Your task to perform on an android device: manage bookmarks in the chrome app Image 0: 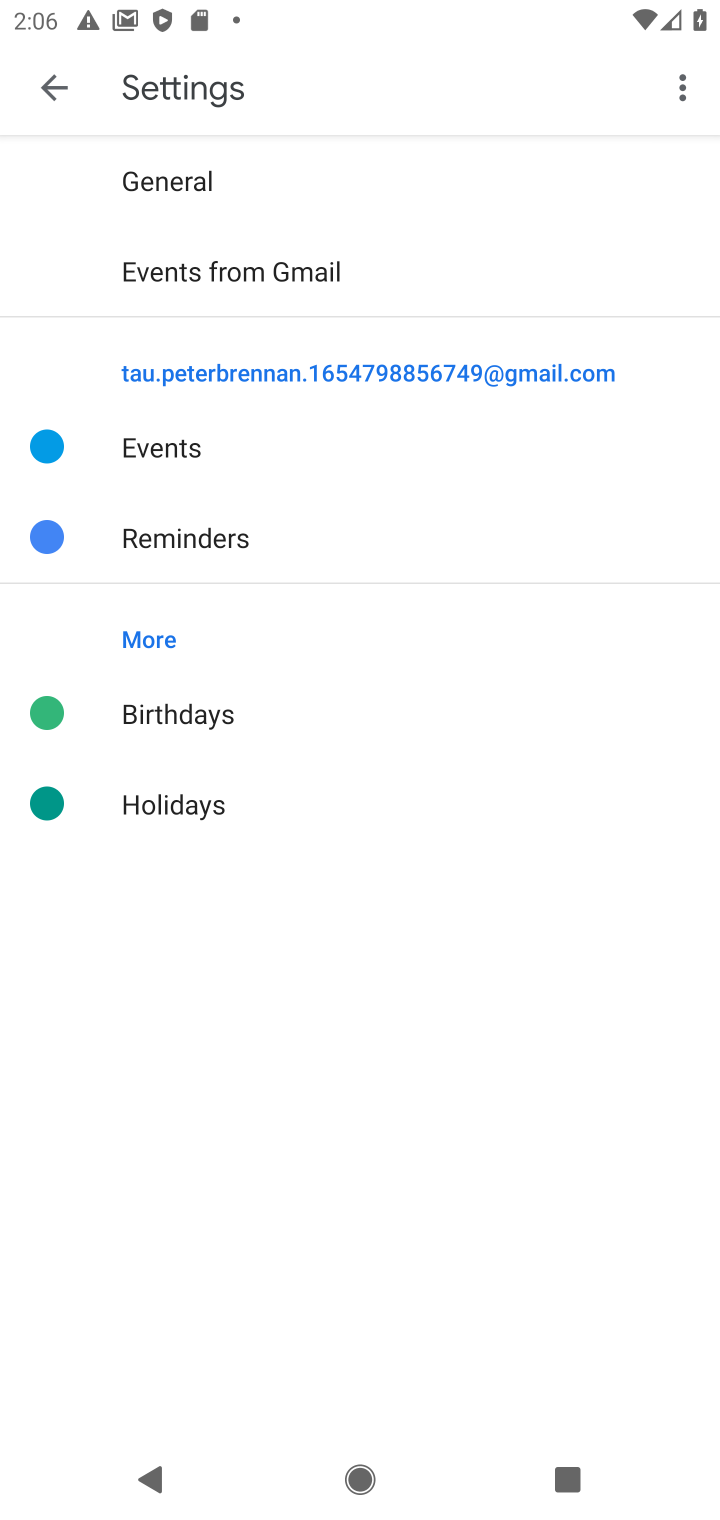
Step 0: press home button
Your task to perform on an android device: manage bookmarks in the chrome app Image 1: 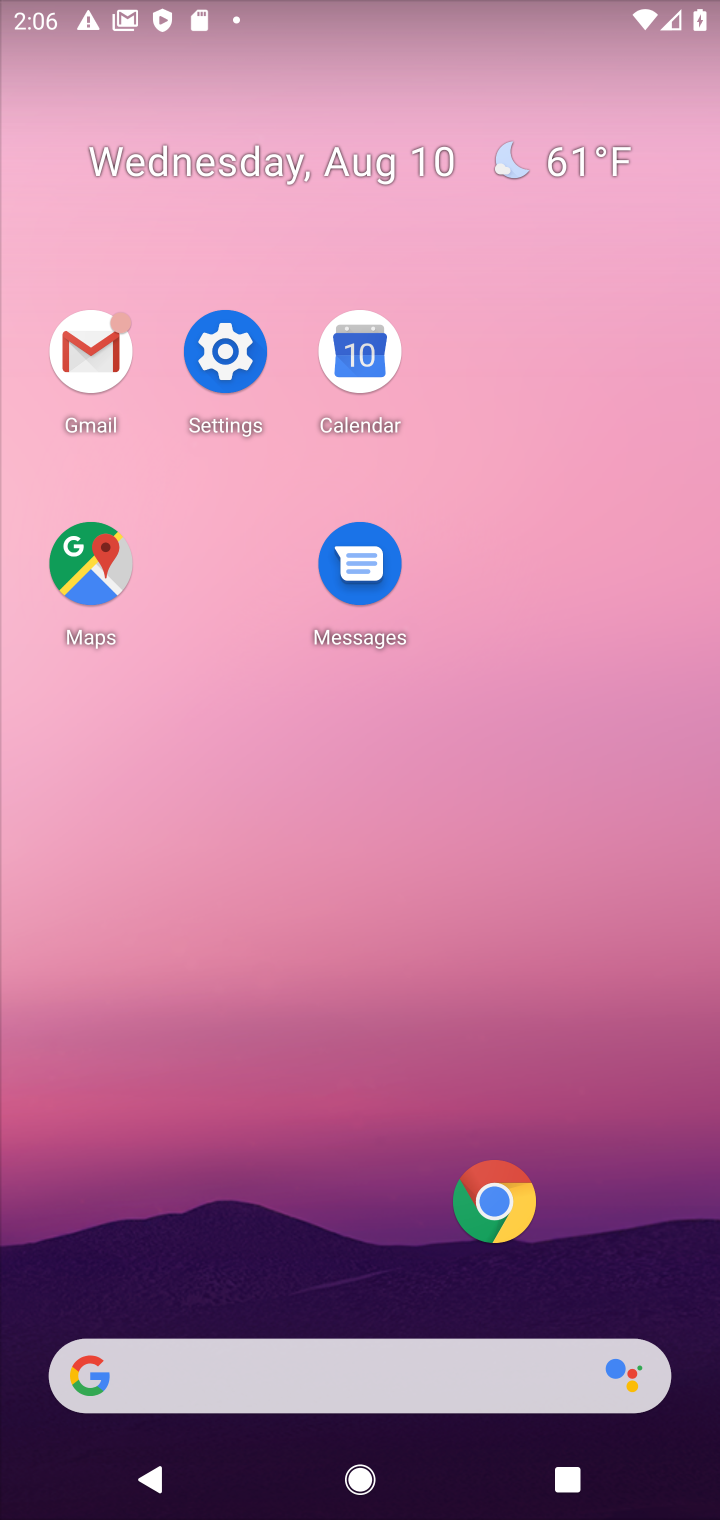
Step 1: click (487, 1189)
Your task to perform on an android device: manage bookmarks in the chrome app Image 2: 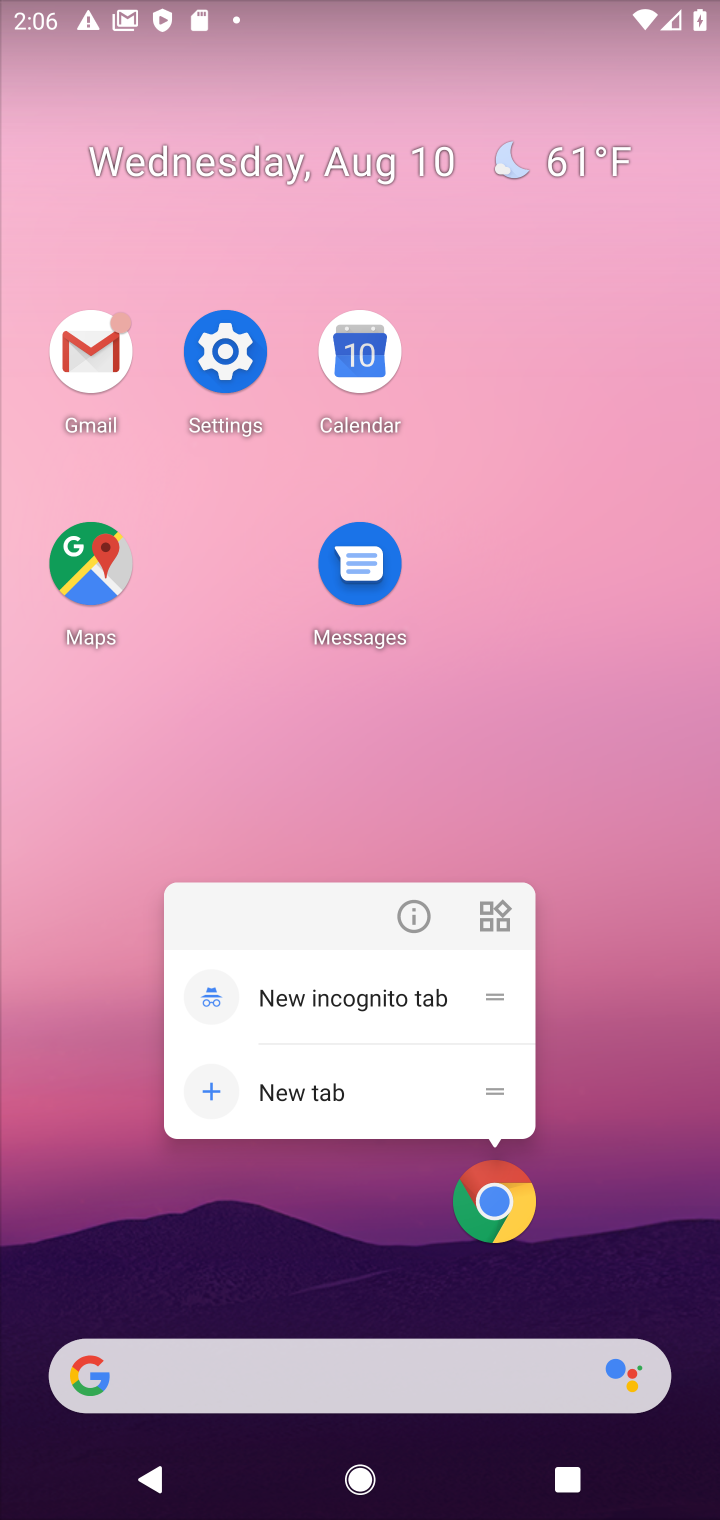
Step 2: click (499, 1202)
Your task to perform on an android device: manage bookmarks in the chrome app Image 3: 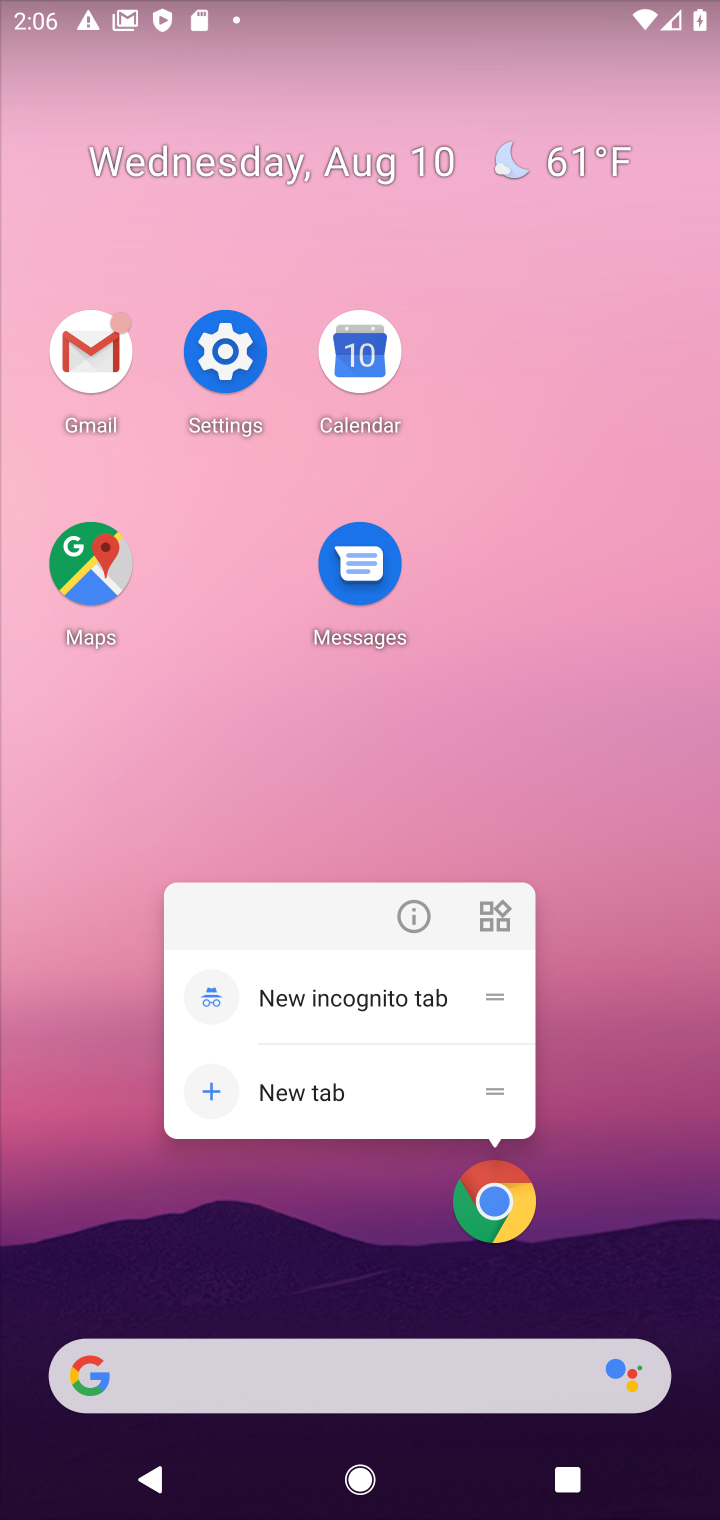
Step 3: click (507, 1202)
Your task to perform on an android device: manage bookmarks in the chrome app Image 4: 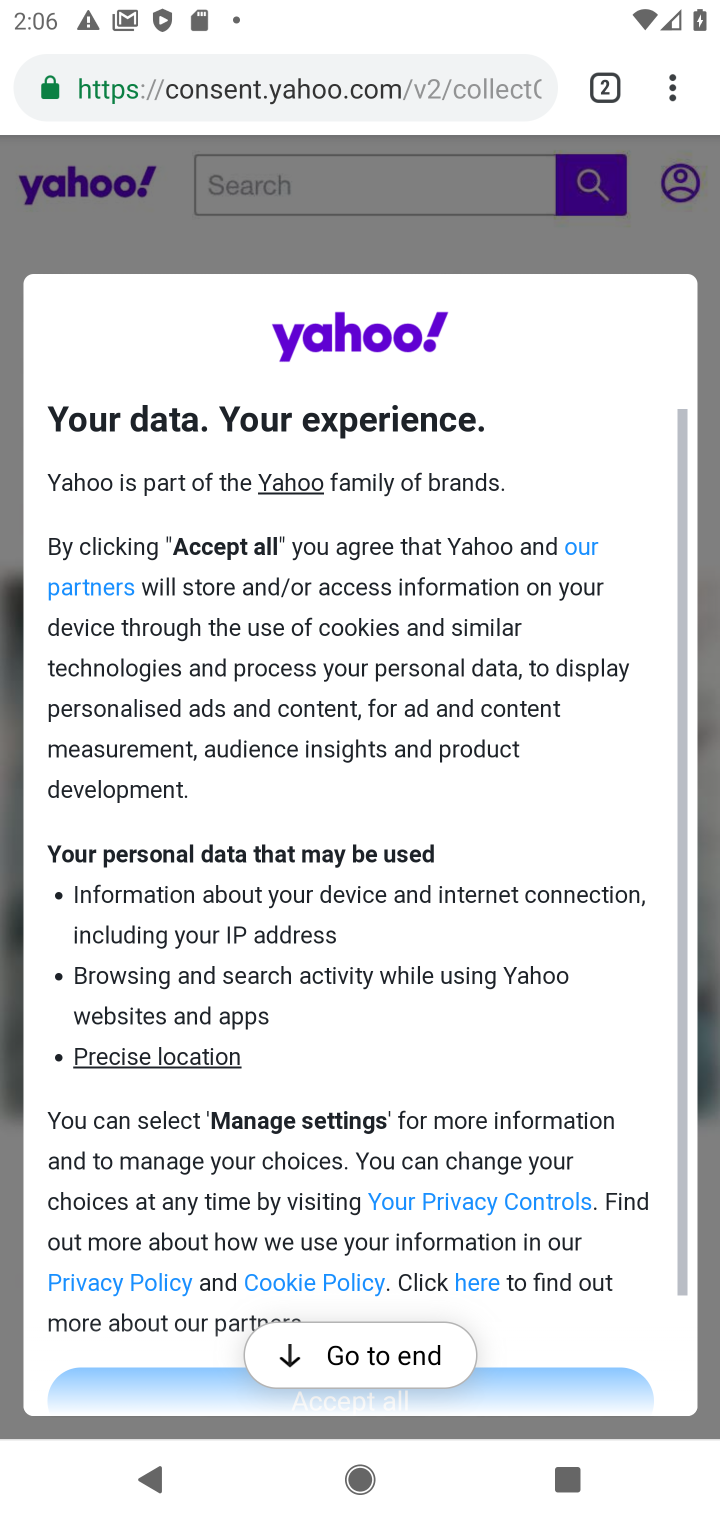
Step 4: click (680, 76)
Your task to perform on an android device: manage bookmarks in the chrome app Image 5: 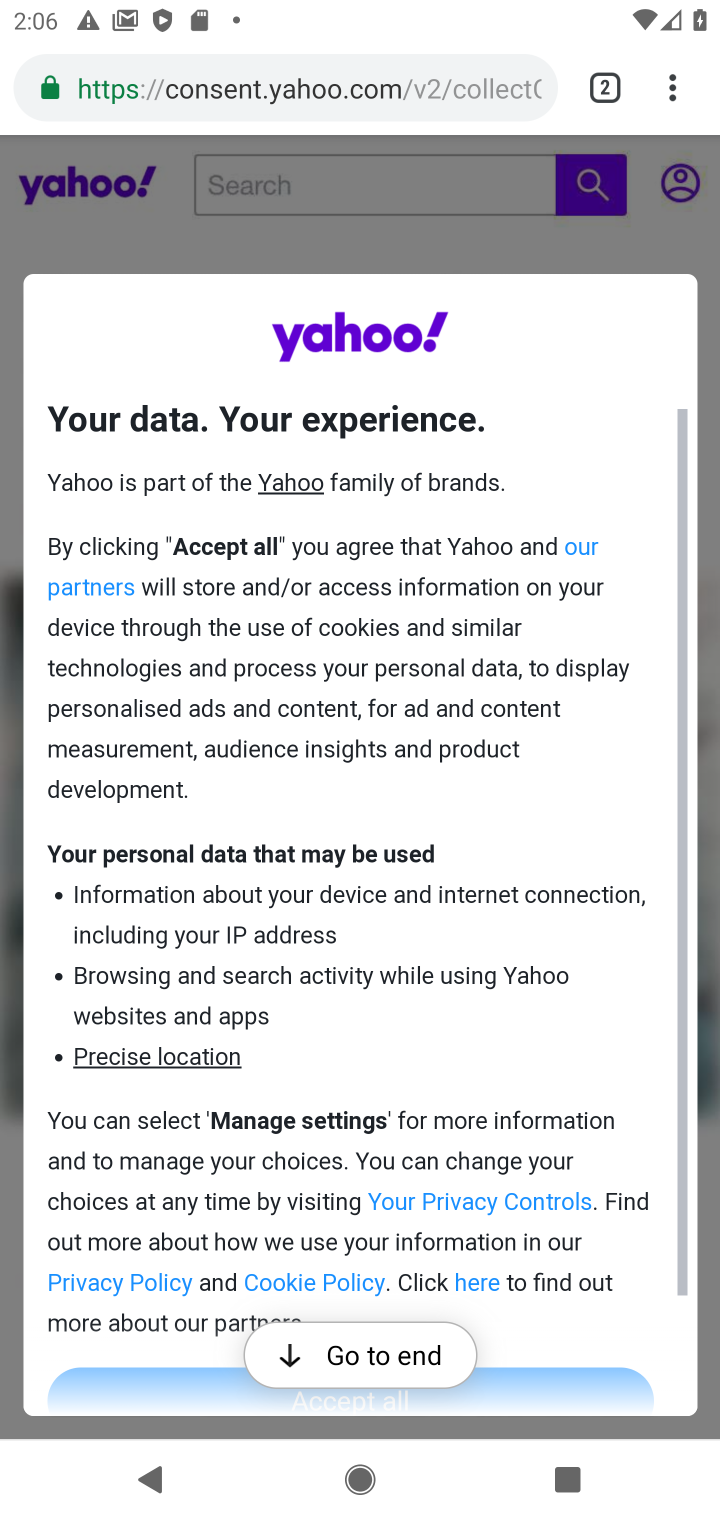
Step 5: click (663, 89)
Your task to perform on an android device: manage bookmarks in the chrome app Image 6: 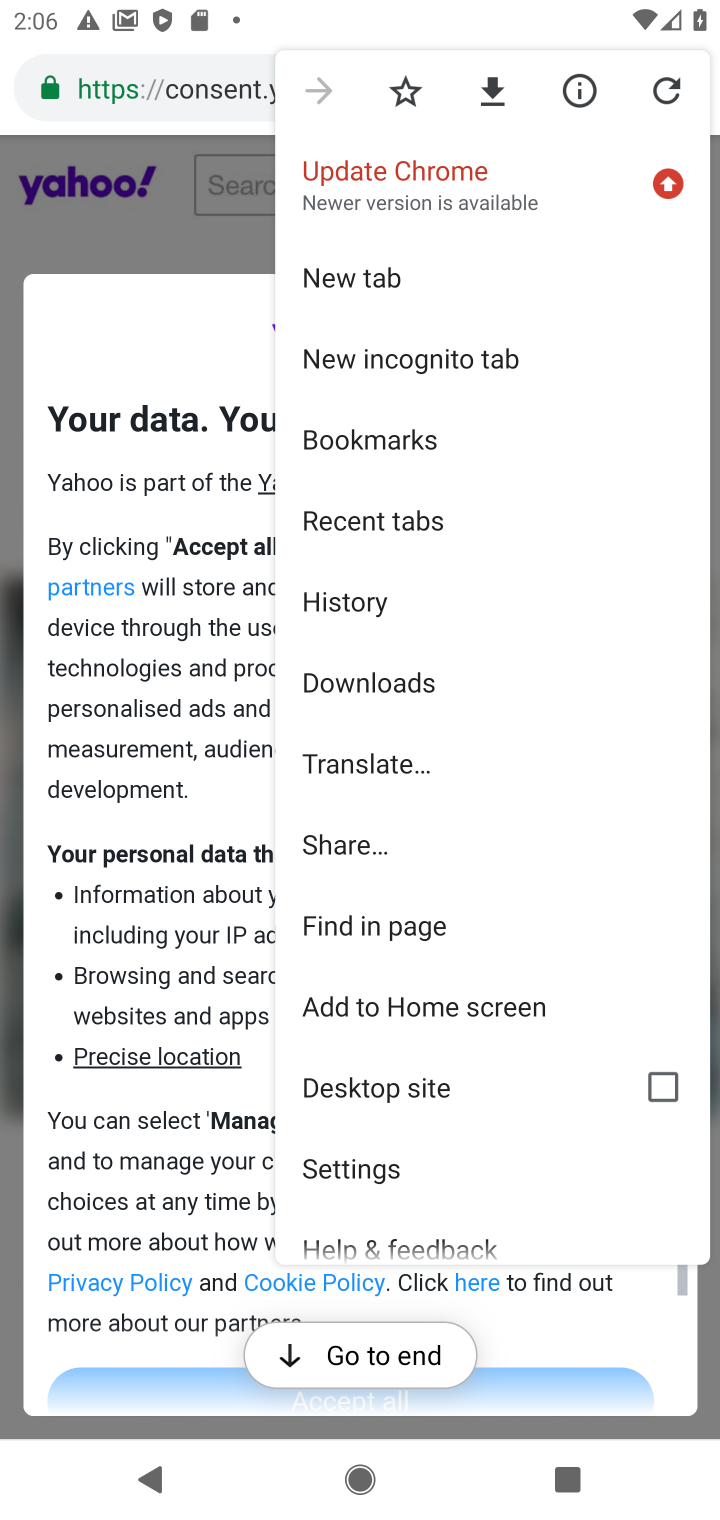
Step 6: click (431, 455)
Your task to perform on an android device: manage bookmarks in the chrome app Image 7: 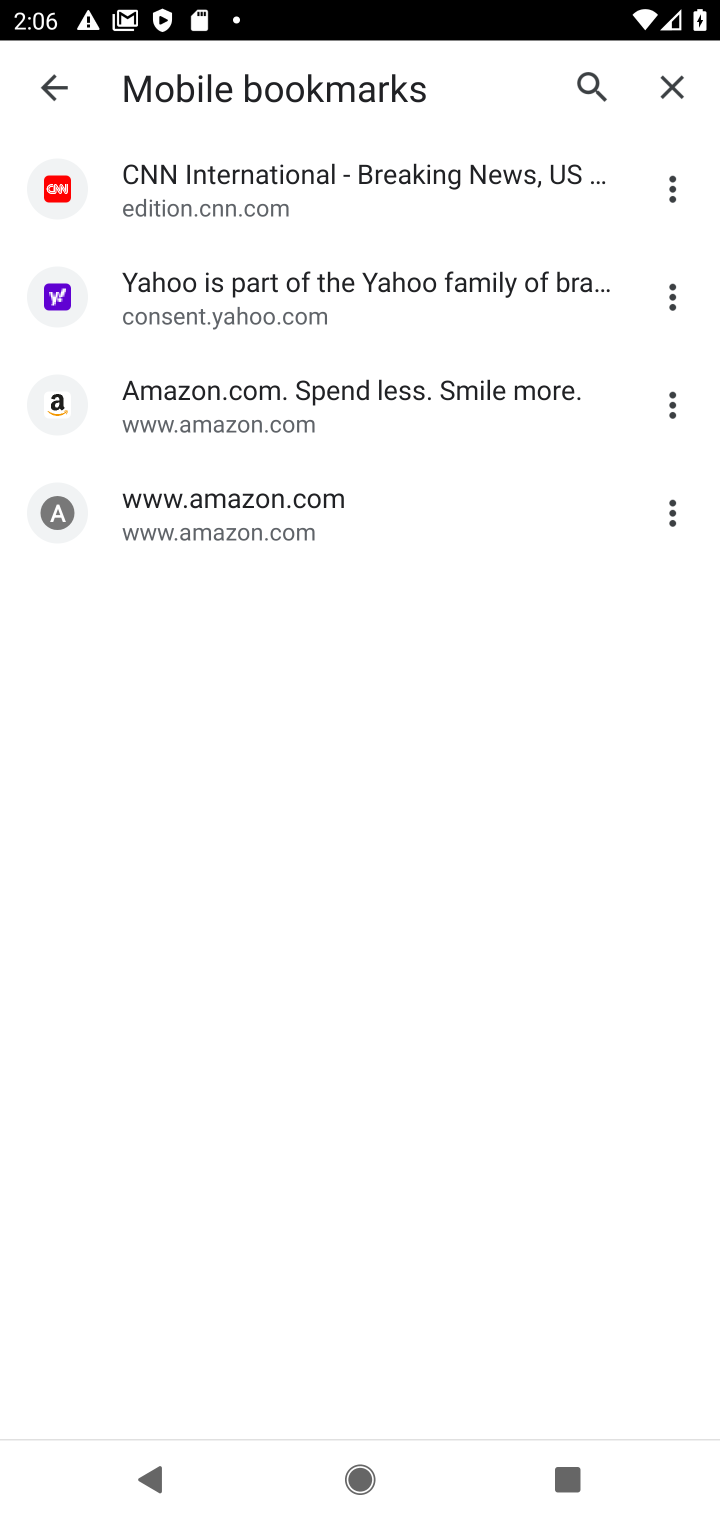
Step 7: click (669, 188)
Your task to perform on an android device: manage bookmarks in the chrome app Image 8: 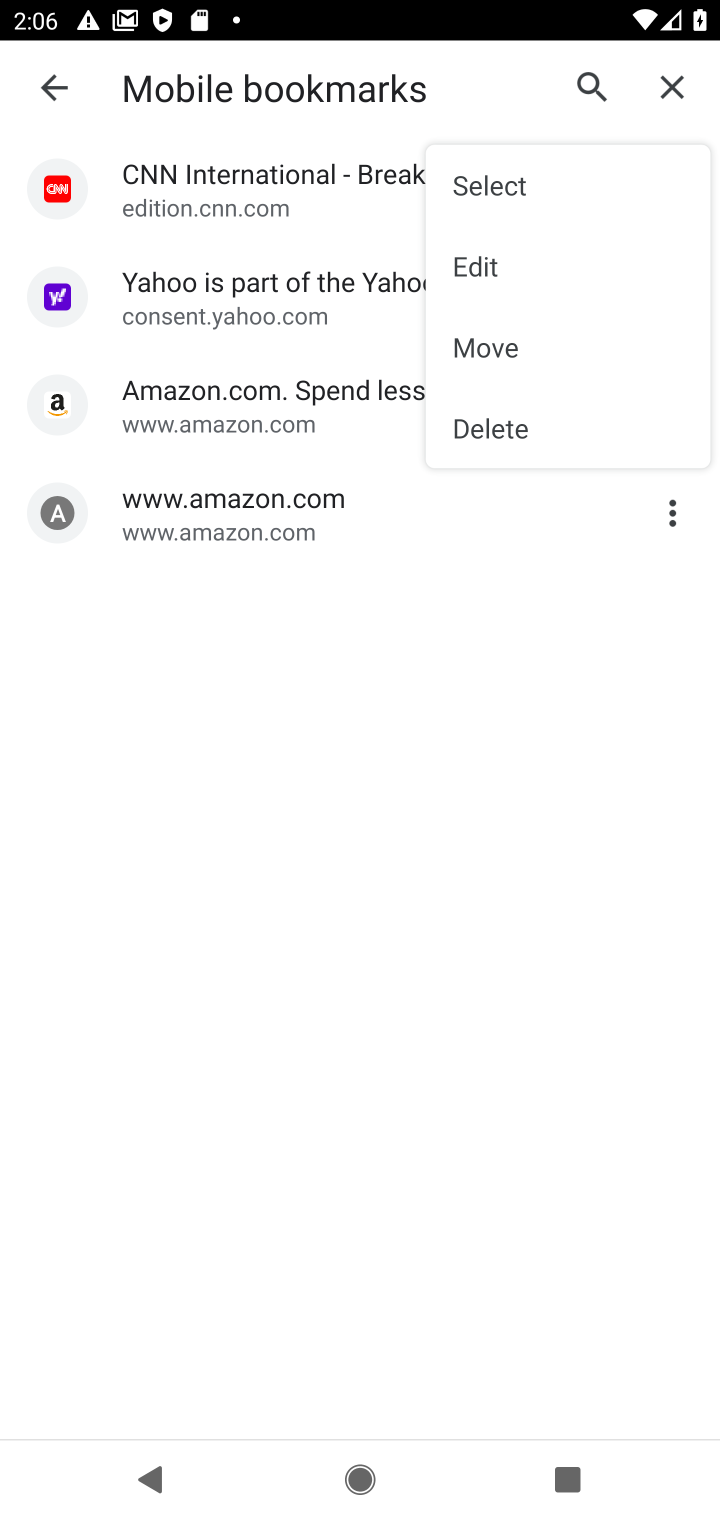
Step 8: click (530, 417)
Your task to perform on an android device: manage bookmarks in the chrome app Image 9: 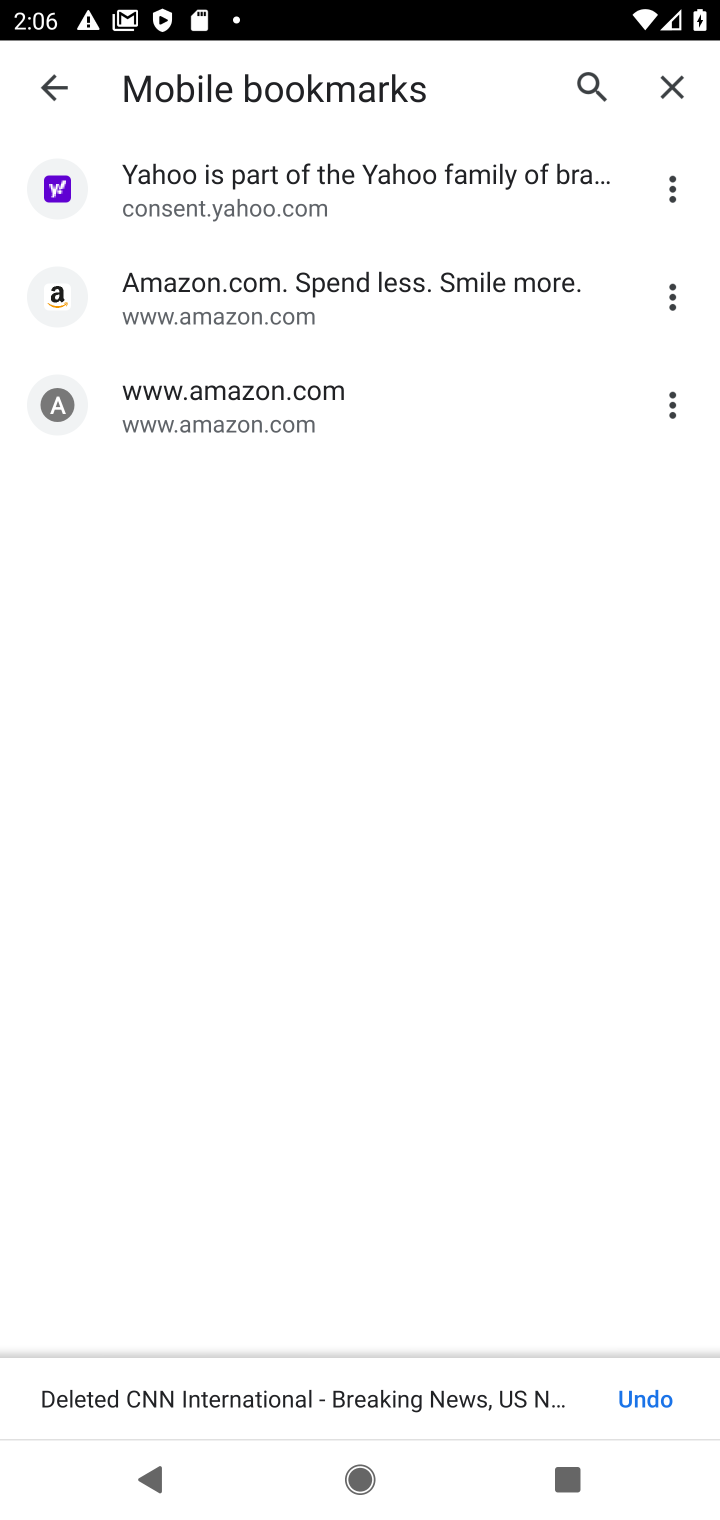
Step 9: task complete